Your task to perform on an android device: empty trash in google photos Image 0: 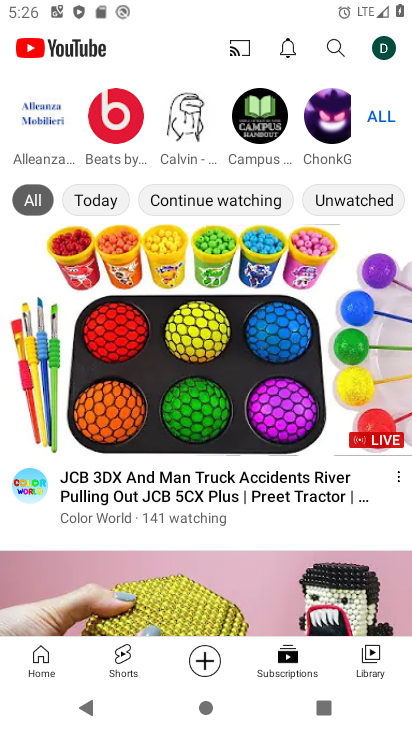
Step 0: drag from (250, 666) to (248, 335)
Your task to perform on an android device: empty trash in google photos Image 1: 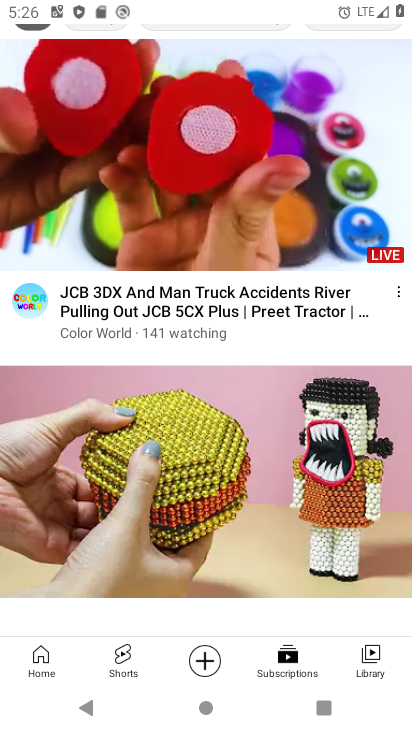
Step 1: press home button
Your task to perform on an android device: empty trash in google photos Image 2: 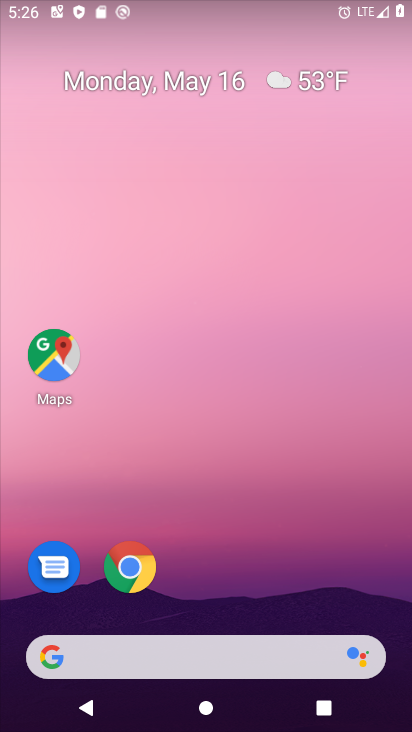
Step 2: drag from (106, 655) to (130, 49)
Your task to perform on an android device: empty trash in google photos Image 3: 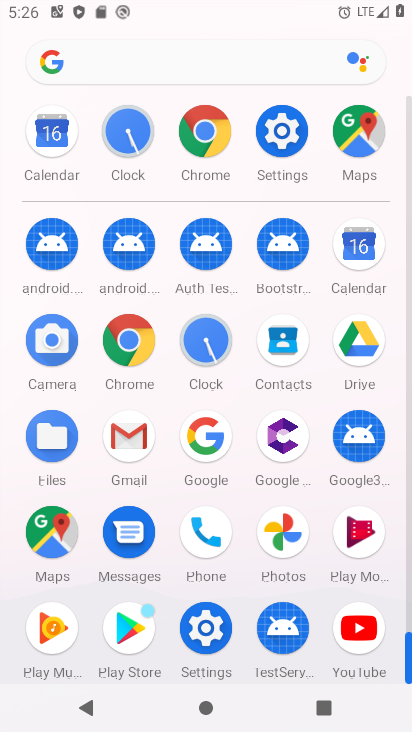
Step 3: click (286, 545)
Your task to perform on an android device: empty trash in google photos Image 4: 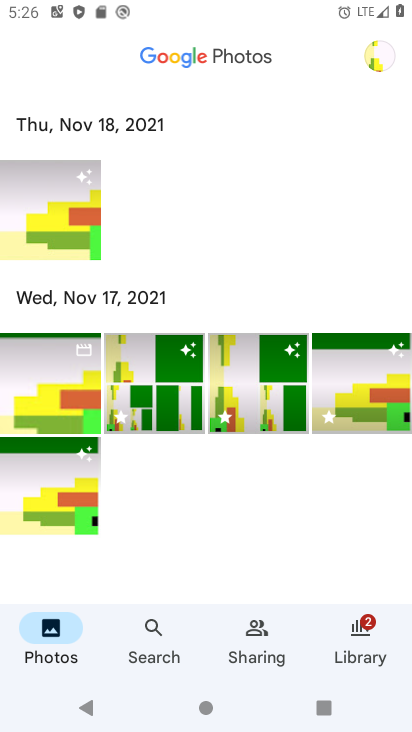
Step 4: click (269, 619)
Your task to perform on an android device: empty trash in google photos Image 5: 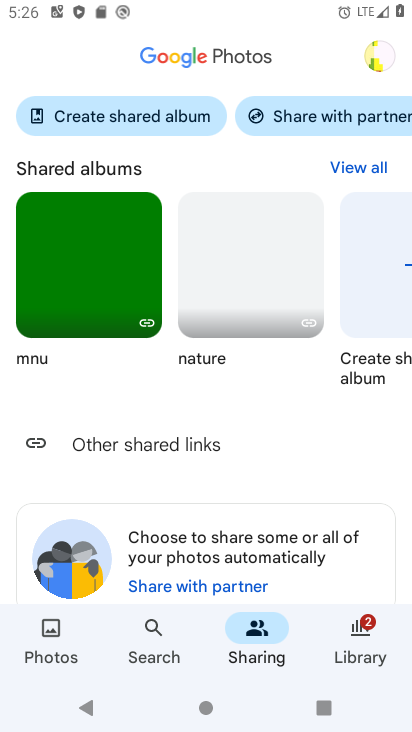
Step 5: click (380, 652)
Your task to perform on an android device: empty trash in google photos Image 6: 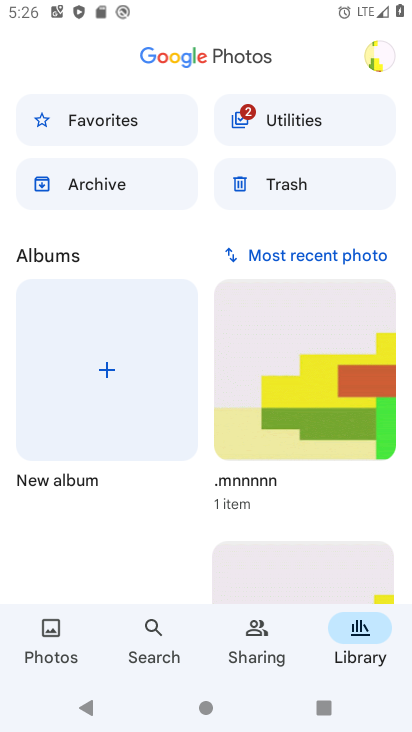
Step 6: click (318, 187)
Your task to perform on an android device: empty trash in google photos Image 7: 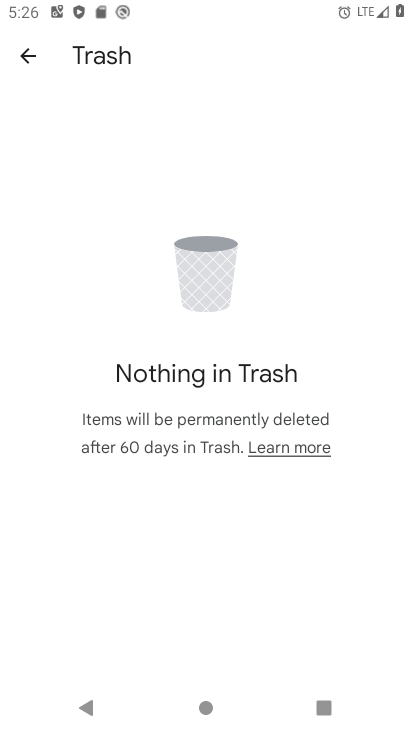
Step 7: task complete